Your task to perform on an android device: turn off location history Image 0: 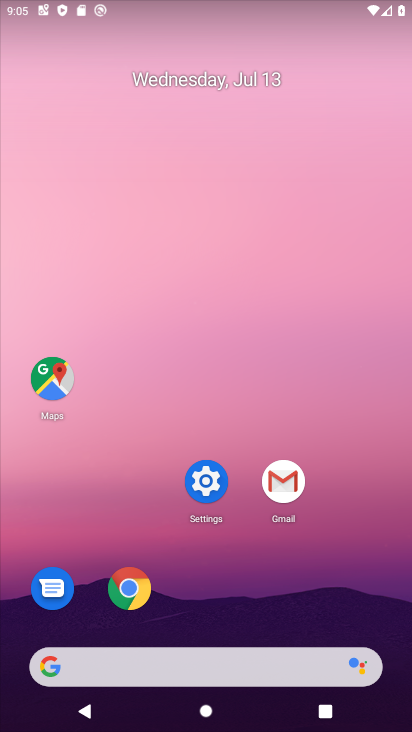
Step 0: click (204, 488)
Your task to perform on an android device: turn off location history Image 1: 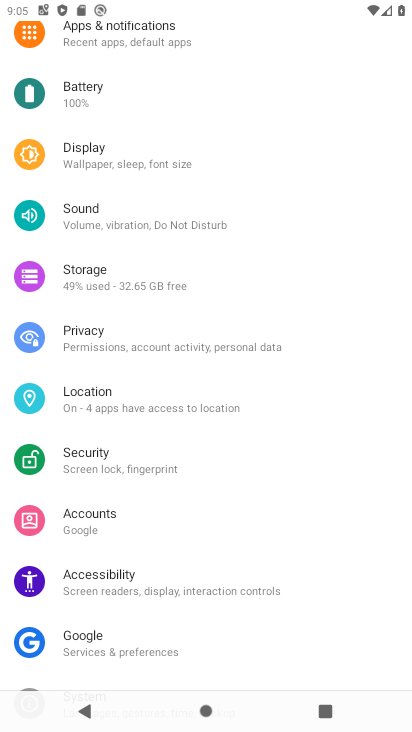
Step 1: click (72, 396)
Your task to perform on an android device: turn off location history Image 2: 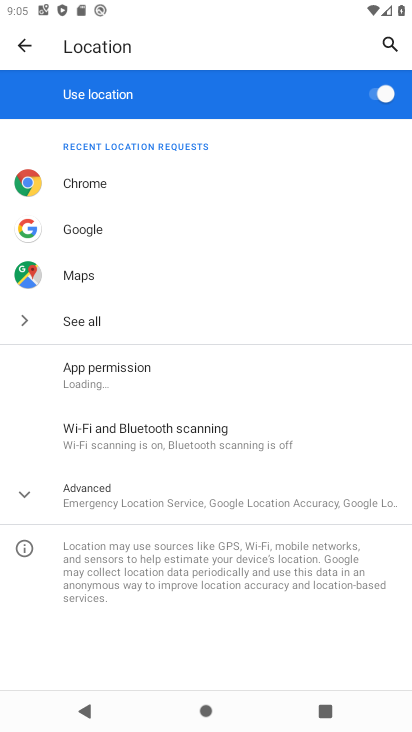
Step 2: click (30, 490)
Your task to perform on an android device: turn off location history Image 3: 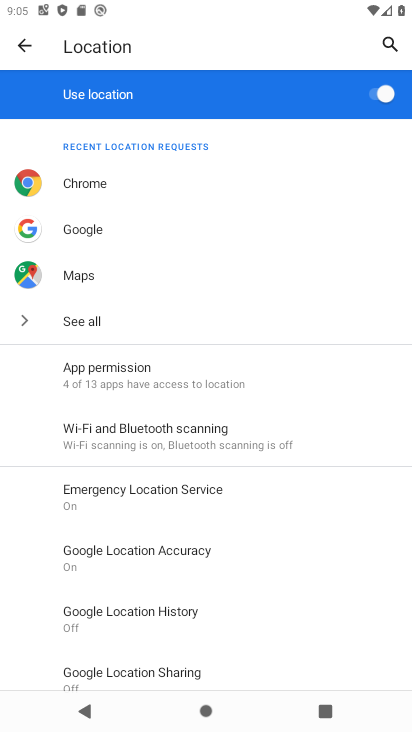
Step 3: click (119, 611)
Your task to perform on an android device: turn off location history Image 4: 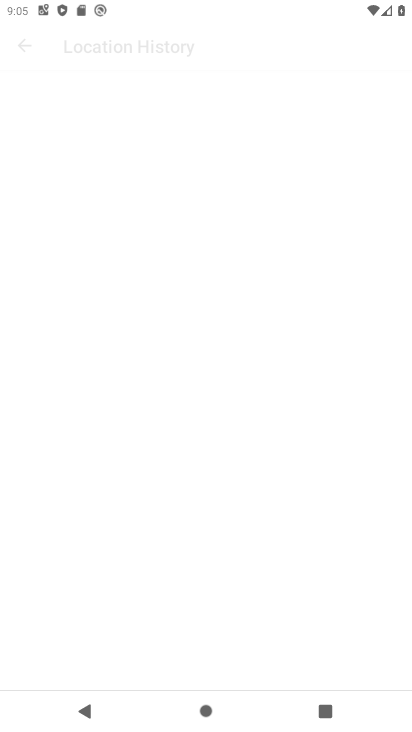
Step 4: task complete